Your task to perform on an android device: toggle notification dots Image 0: 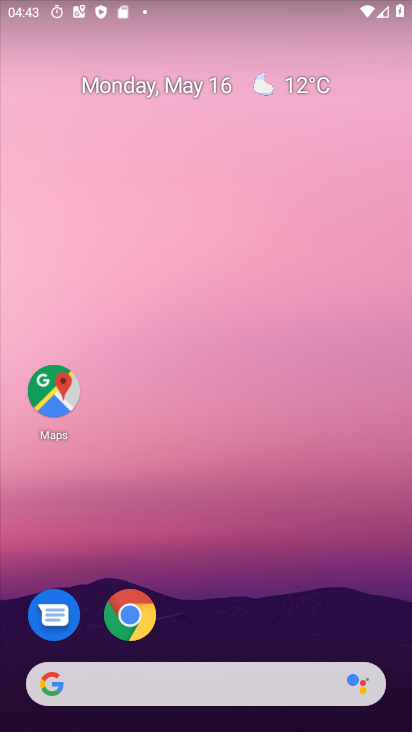
Step 0: drag from (326, 641) to (175, 6)
Your task to perform on an android device: toggle notification dots Image 1: 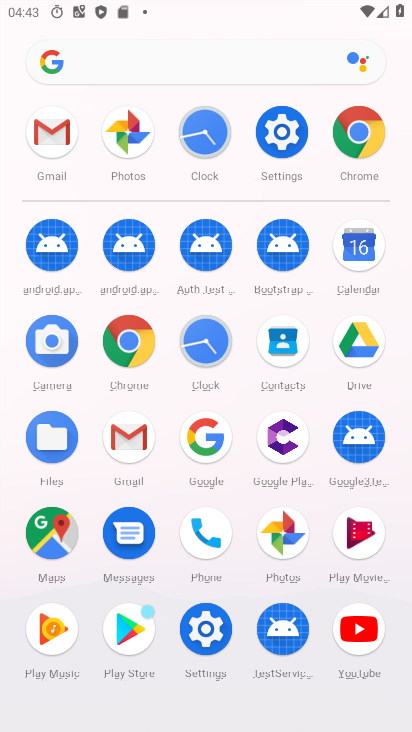
Step 1: click (215, 628)
Your task to perform on an android device: toggle notification dots Image 2: 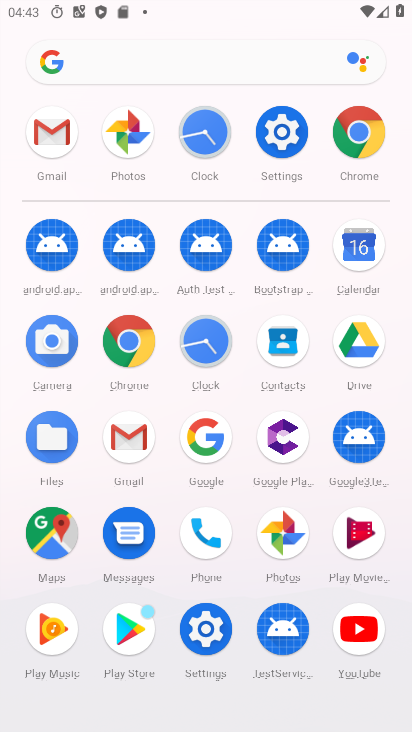
Step 2: click (206, 627)
Your task to perform on an android device: toggle notification dots Image 3: 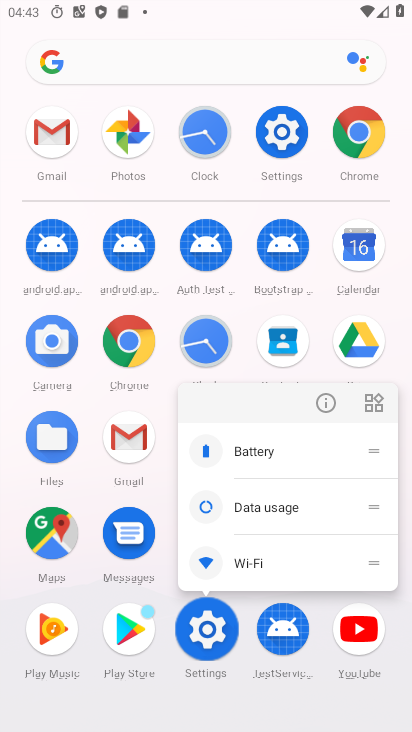
Step 3: click (206, 627)
Your task to perform on an android device: toggle notification dots Image 4: 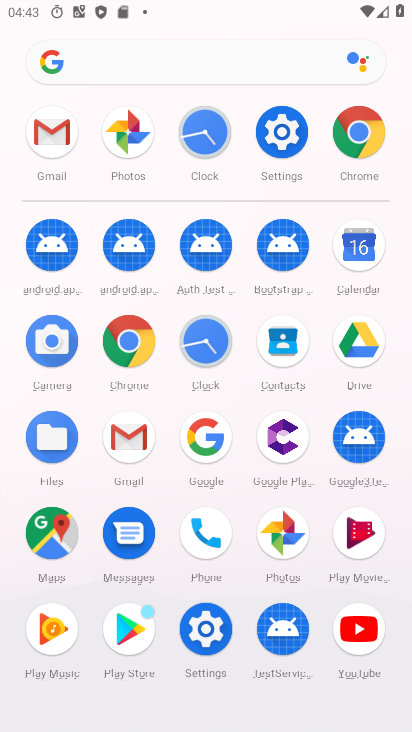
Step 4: click (207, 626)
Your task to perform on an android device: toggle notification dots Image 5: 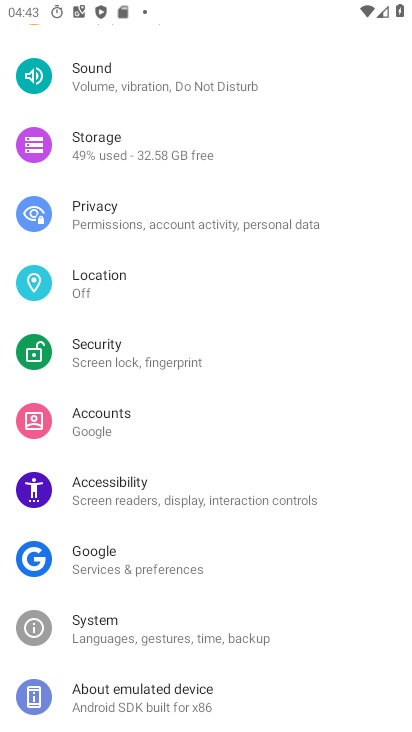
Step 5: click (210, 628)
Your task to perform on an android device: toggle notification dots Image 6: 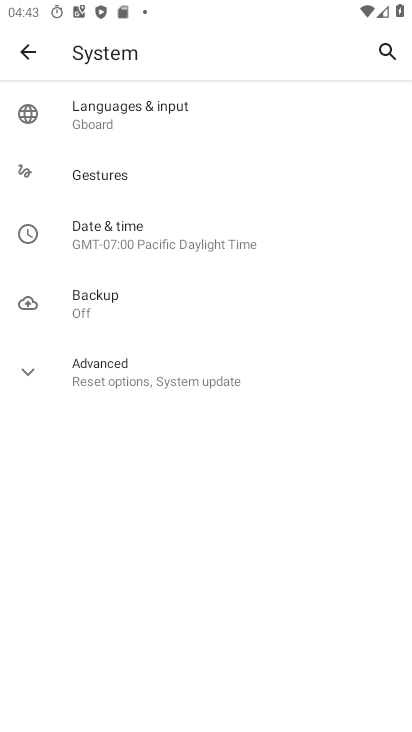
Step 6: click (24, 47)
Your task to perform on an android device: toggle notification dots Image 7: 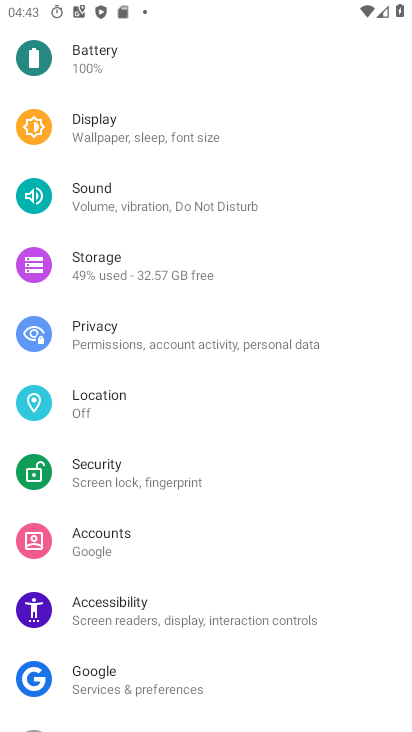
Step 7: drag from (129, 208) to (225, 582)
Your task to perform on an android device: toggle notification dots Image 8: 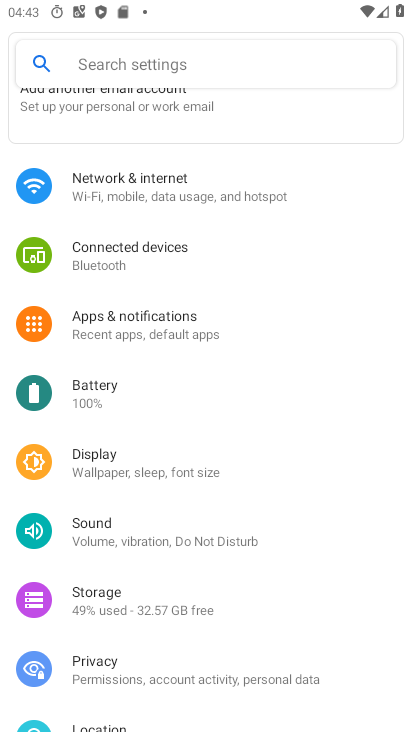
Step 8: drag from (183, 101) to (183, 483)
Your task to perform on an android device: toggle notification dots Image 9: 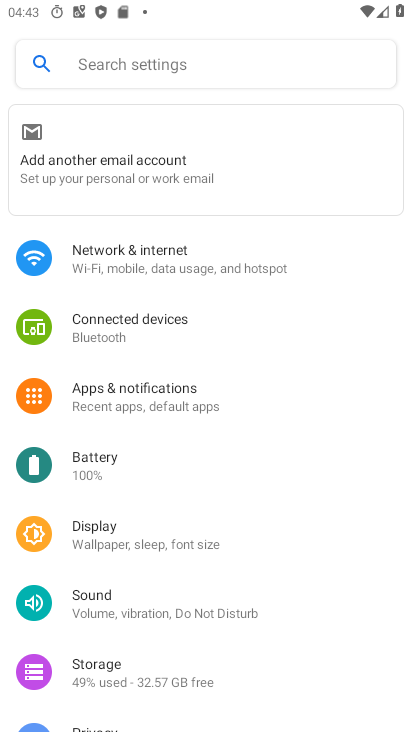
Step 9: click (120, 321)
Your task to perform on an android device: toggle notification dots Image 10: 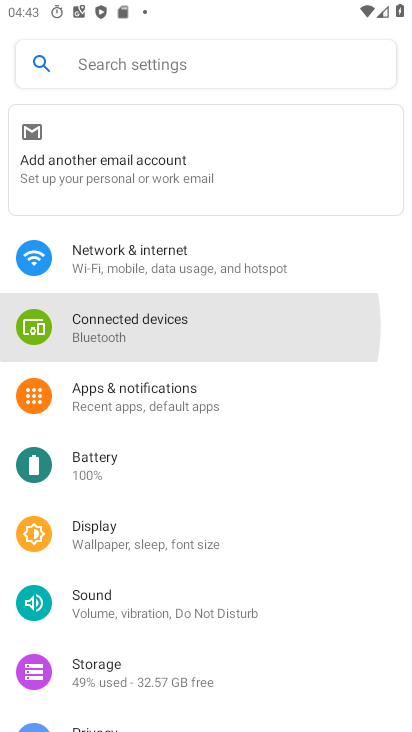
Step 10: click (121, 308)
Your task to perform on an android device: toggle notification dots Image 11: 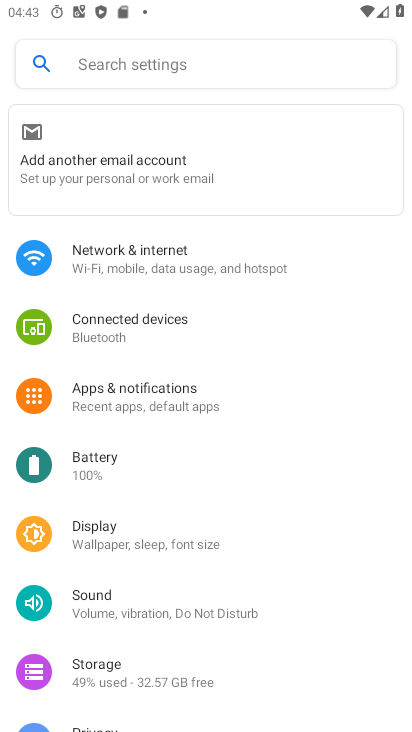
Step 11: click (127, 314)
Your task to perform on an android device: toggle notification dots Image 12: 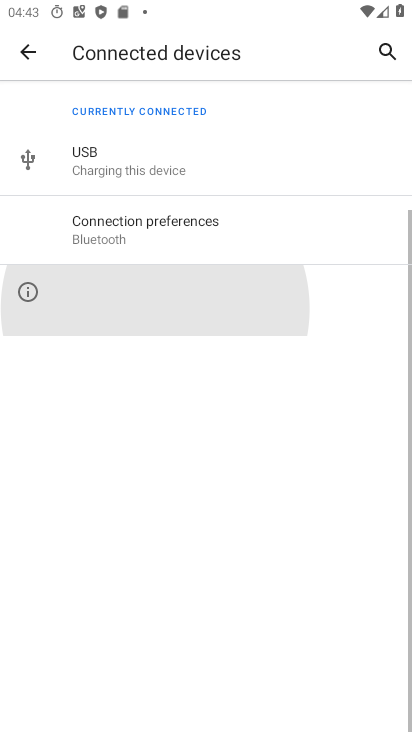
Step 12: click (132, 319)
Your task to perform on an android device: toggle notification dots Image 13: 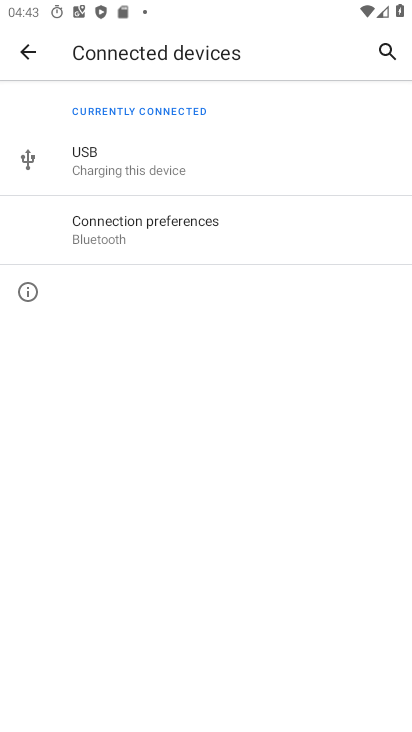
Step 13: click (12, 48)
Your task to perform on an android device: toggle notification dots Image 14: 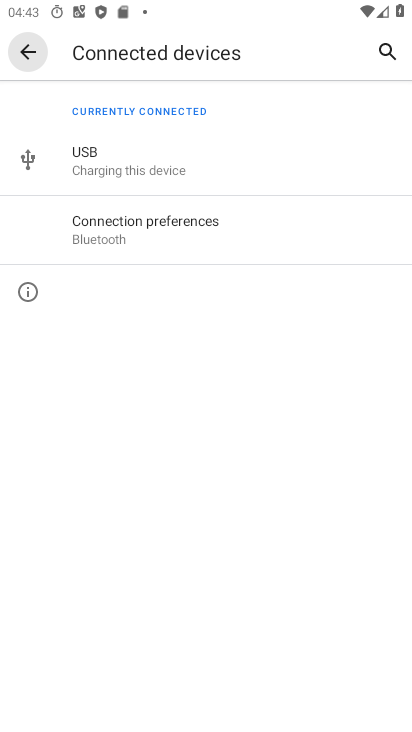
Step 14: click (15, 48)
Your task to perform on an android device: toggle notification dots Image 15: 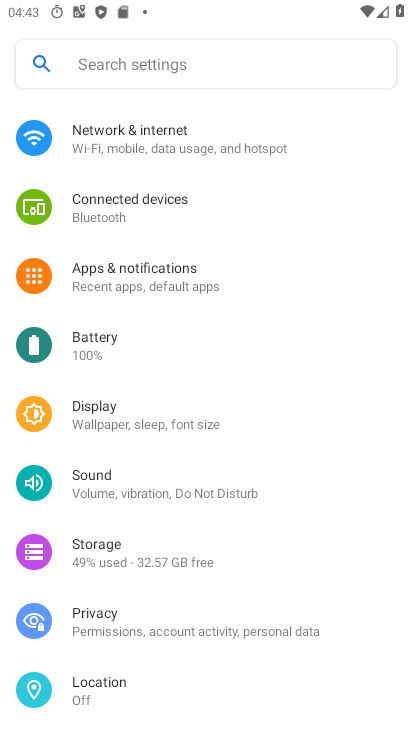
Step 15: click (17, 50)
Your task to perform on an android device: toggle notification dots Image 16: 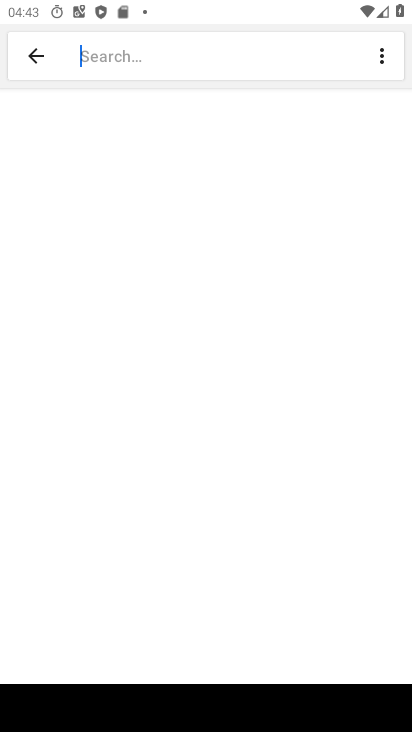
Step 16: click (133, 401)
Your task to perform on an android device: toggle notification dots Image 17: 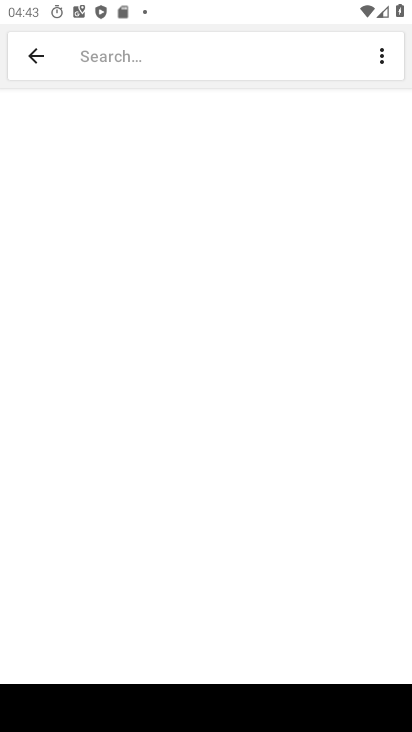
Step 17: click (133, 401)
Your task to perform on an android device: toggle notification dots Image 18: 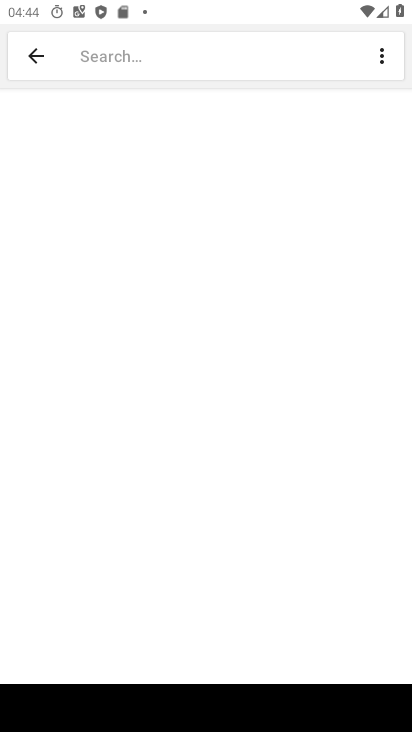
Step 18: click (37, 52)
Your task to perform on an android device: toggle notification dots Image 19: 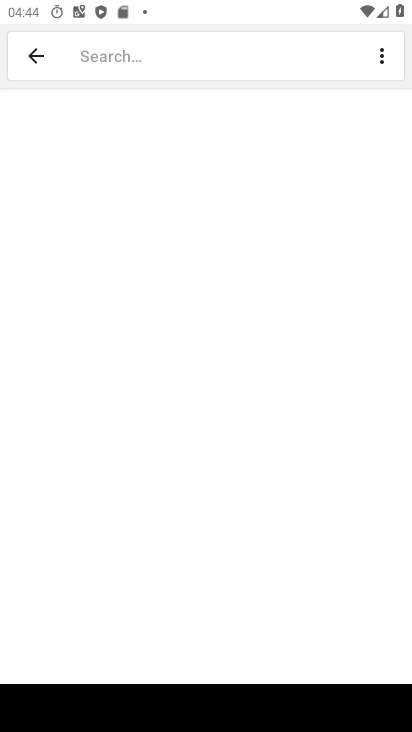
Step 19: click (38, 52)
Your task to perform on an android device: toggle notification dots Image 20: 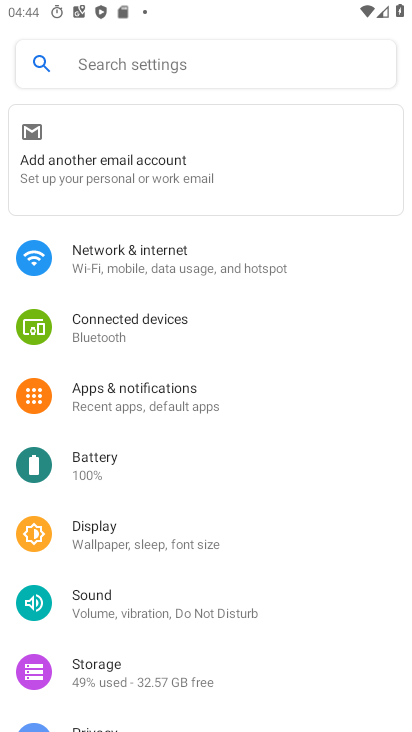
Step 20: click (127, 384)
Your task to perform on an android device: toggle notification dots Image 21: 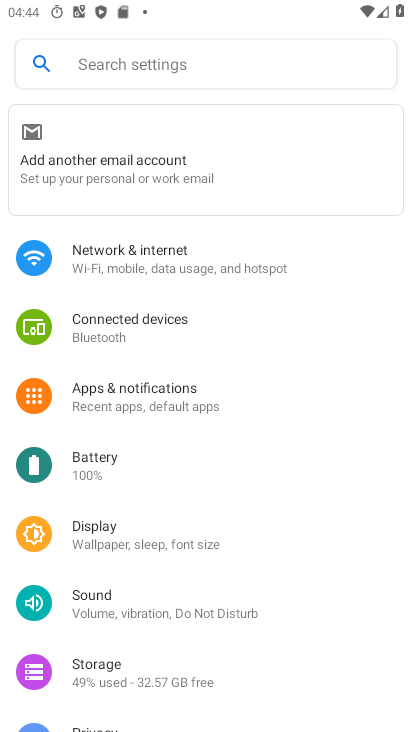
Step 21: click (127, 384)
Your task to perform on an android device: toggle notification dots Image 22: 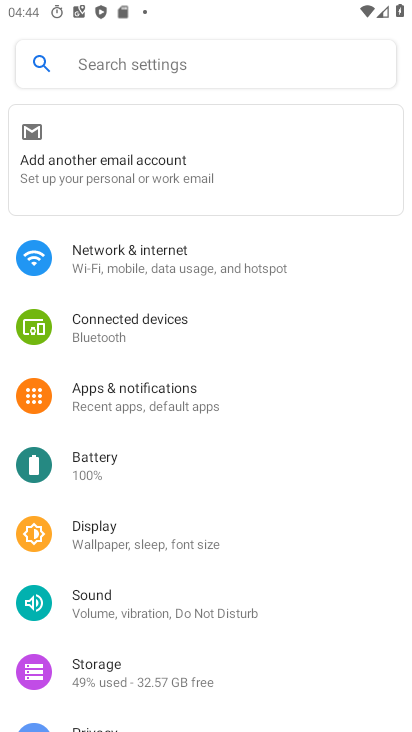
Step 22: click (126, 385)
Your task to perform on an android device: toggle notification dots Image 23: 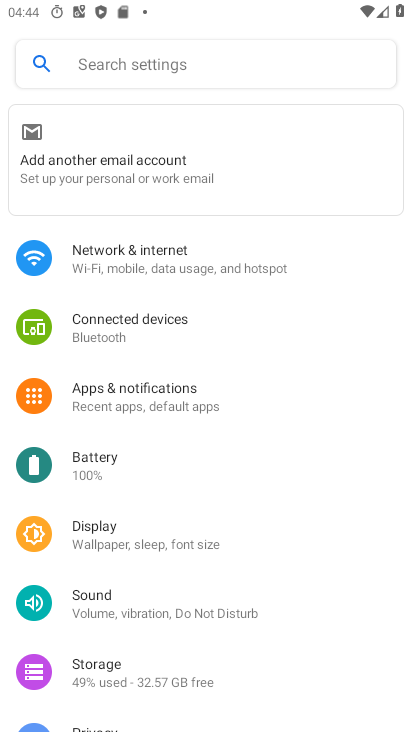
Step 23: click (127, 386)
Your task to perform on an android device: toggle notification dots Image 24: 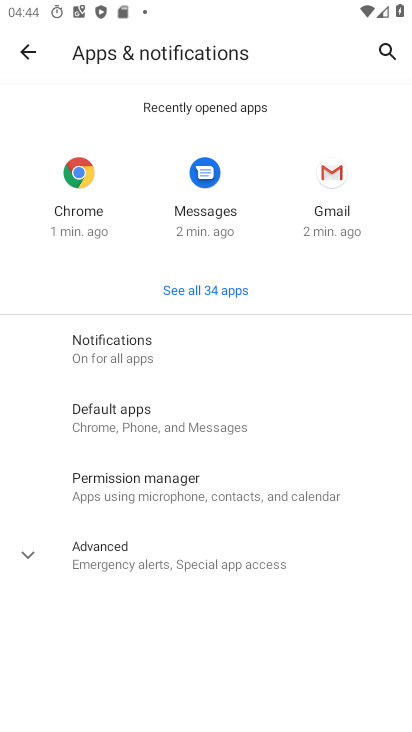
Step 24: click (96, 352)
Your task to perform on an android device: toggle notification dots Image 25: 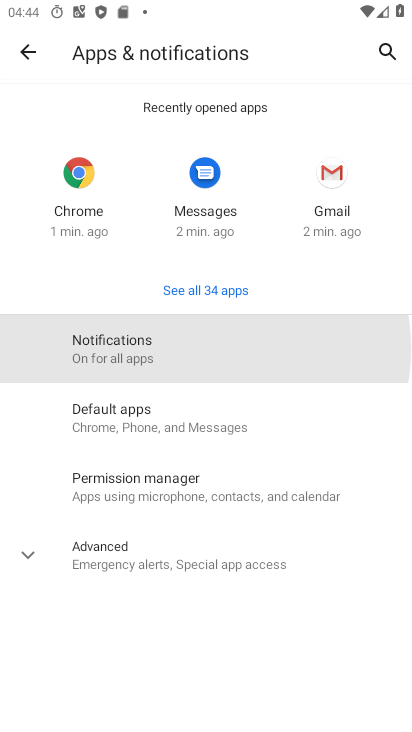
Step 25: click (98, 352)
Your task to perform on an android device: toggle notification dots Image 26: 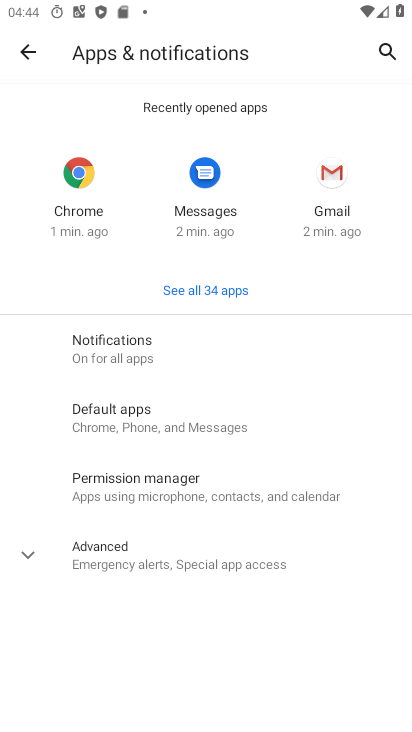
Step 26: click (99, 353)
Your task to perform on an android device: toggle notification dots Image 27: 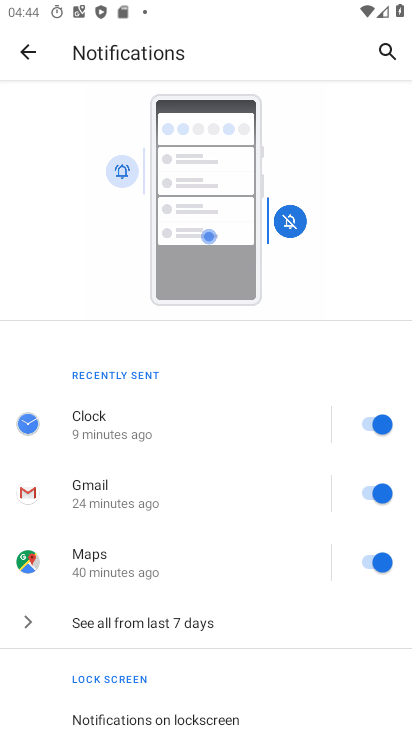
Step 27: drag from (223, 383) to (239, 80)
Your task to perform on an android device: toggle notification dots Image 28: 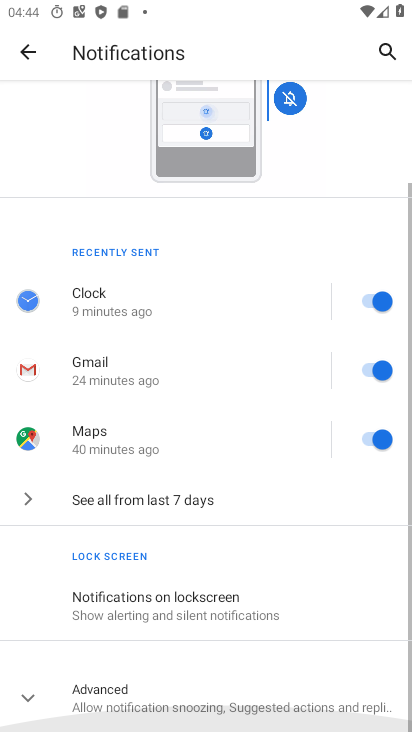
Step 28: drag from (243, 422) to (207, 12)
Your task to perform on an android device: toggle notification dots Image 29: 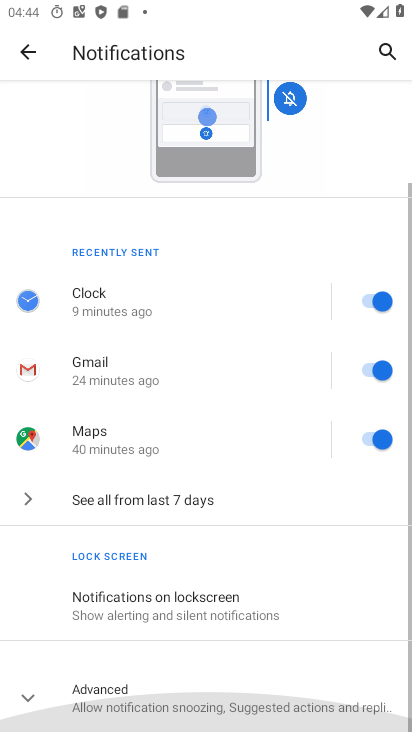
Step 29: drag from (219, 363) to (171, 76)
Your task to perform on an android device: toggle notification dots Image 30: 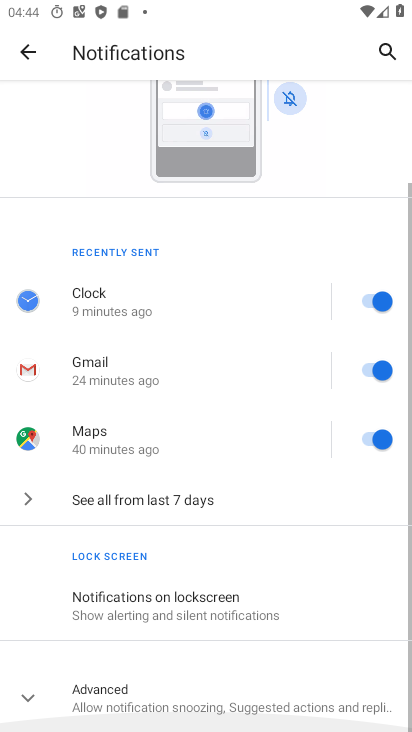
Step 30: drag from (256, 438) to (226, 8)
Your task to perform on an android device: toggle notification dots Image 31: 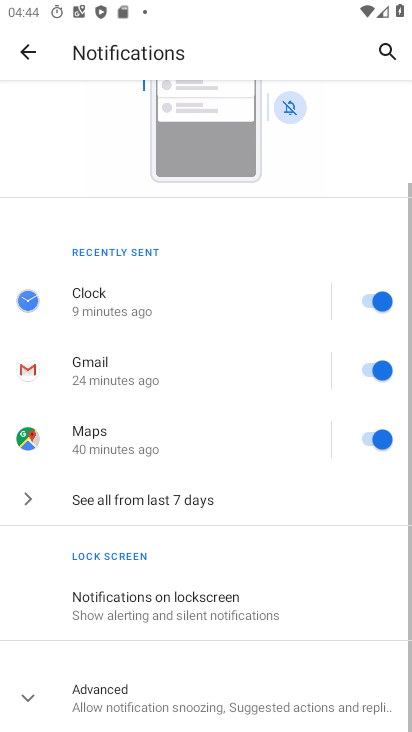
Step 31: drag from (232, 427) to (111, 113)
Your task to perform on an android device: toggle notification dots Image 32: 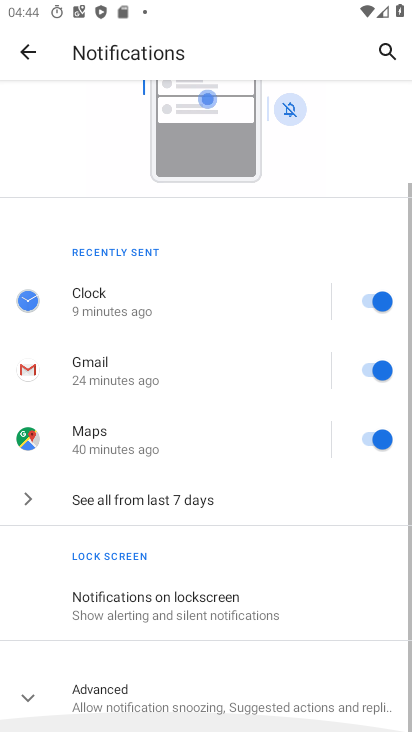
Step 32: drag from (221, 456) to (203, 235)
Your task to perform on an android device: toggle notification dots Image 33: 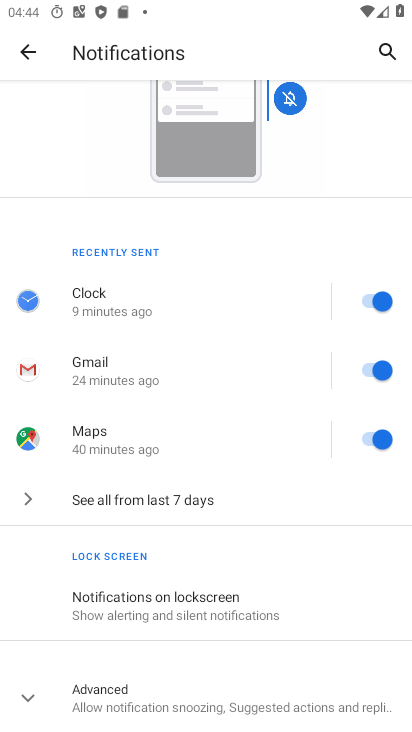
Step 33: drag from (266, 566) to (180, 10)
Your task to perform on an android device: toggle notification dots Image 34: 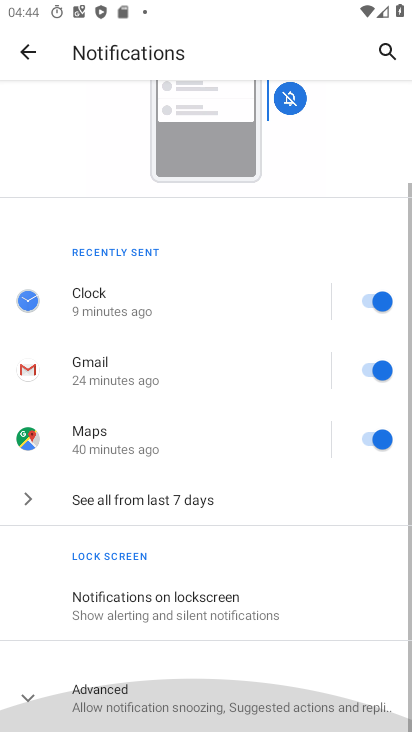
Step 34: drag from (240, 480) to (164, 0)
Your task to perform on an android device: toggle notification dots Image 35: 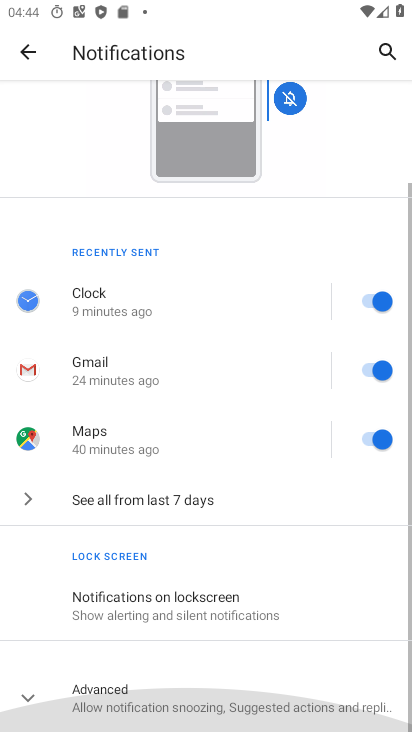
Step 35: drag from (222, 279) to (208, 55)
Your task to perform on an android device: toggle notification dots Image 36: 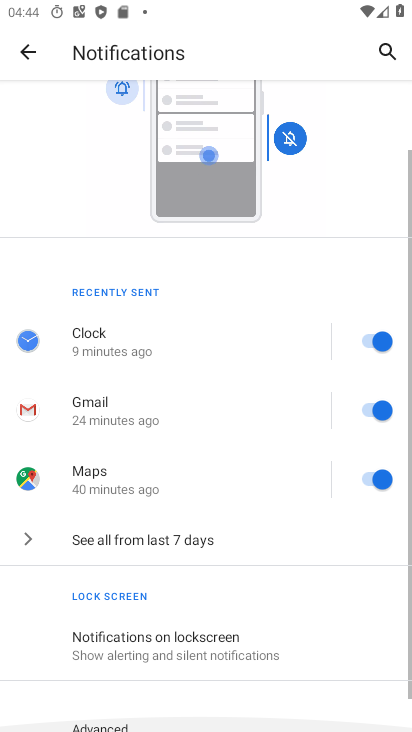
Step 36: drag from (243, 422) to (214, 79)
Your task to perform on an android device: toggle notification dots Image 37: 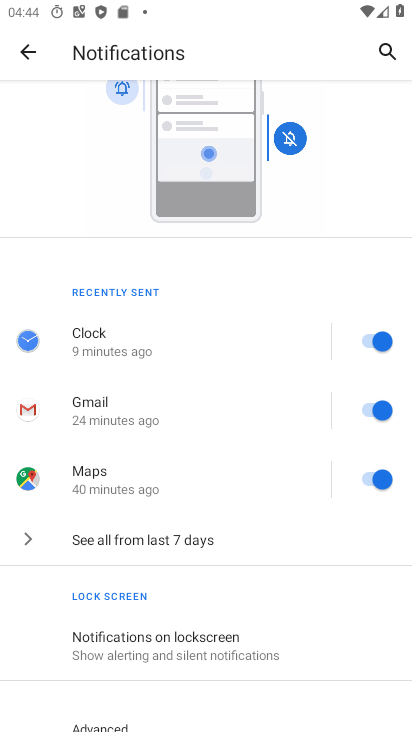
Step 37: drag from (167, 539) to (126, 54)
Your task to perform on an android device: toggle notification dots Image 38: 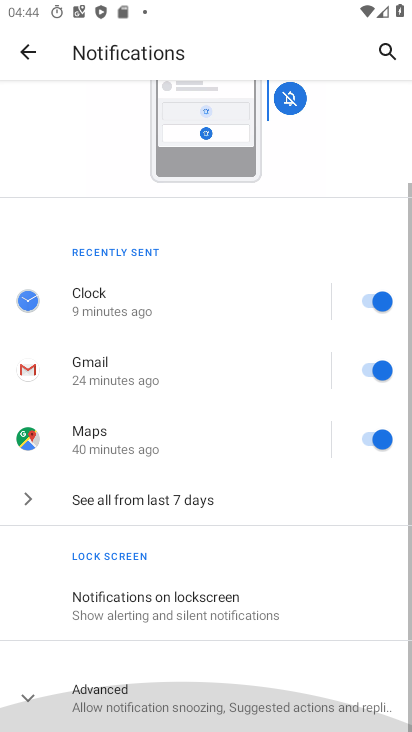
Step 38: drag from (134, 484) to (81, 55)
Your task to perform on an android device: toggle notification dots Image 39: 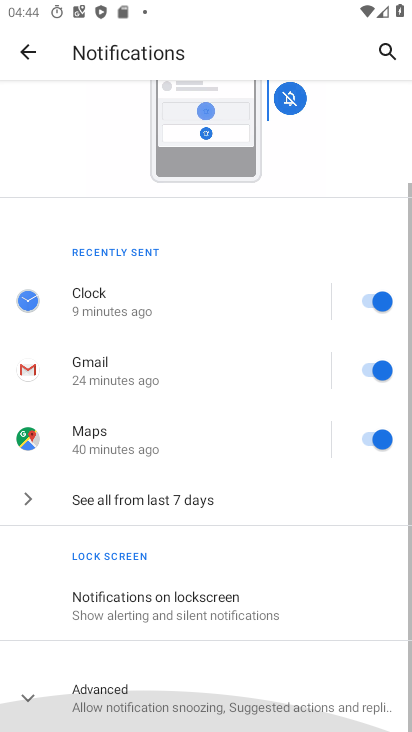
Step 39: drag from (173, 407) to (93, 13)
Your task to perform on an android device: toggle notification dots Image 40: 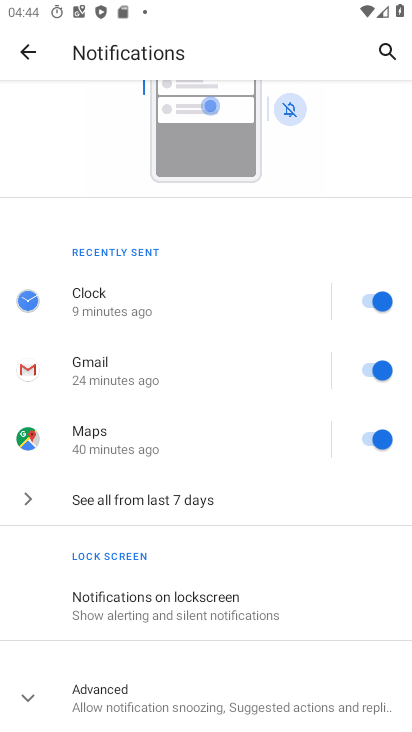
Step 40: click (138, 592)
Your task to perform on an android device: toggle notification dots Image 41: 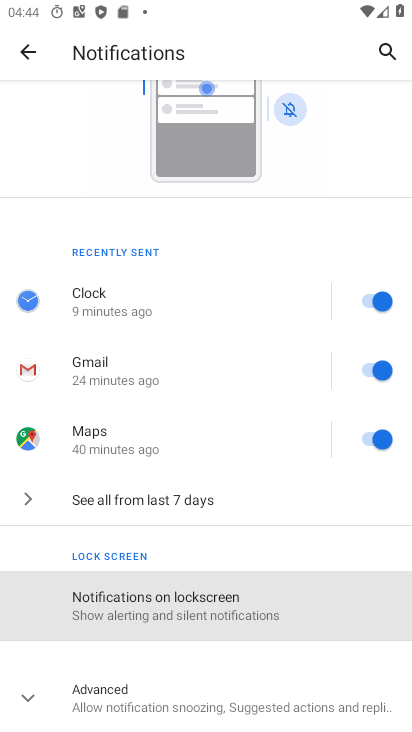
Step 41: click (138, 592)
Your task to perform on an android device: toggle notification dots Image 42: 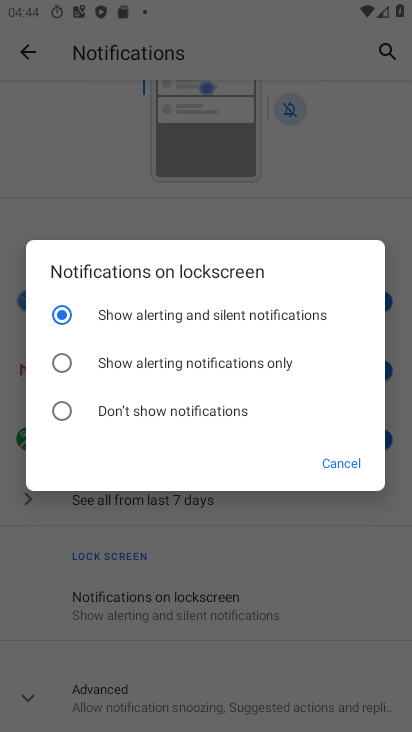
Step 42: click (137, 590)
Your task to perform on an android device: toggle notification dots Image 43: 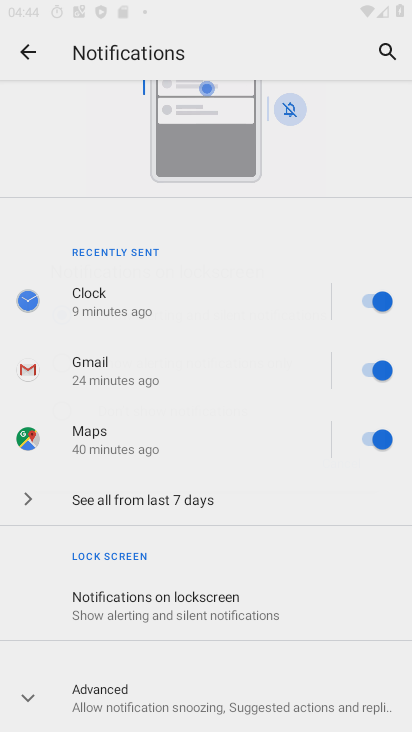
Step 43: click (135, 586)
Your task to perform on an android device: toggle notification dots Image 44: 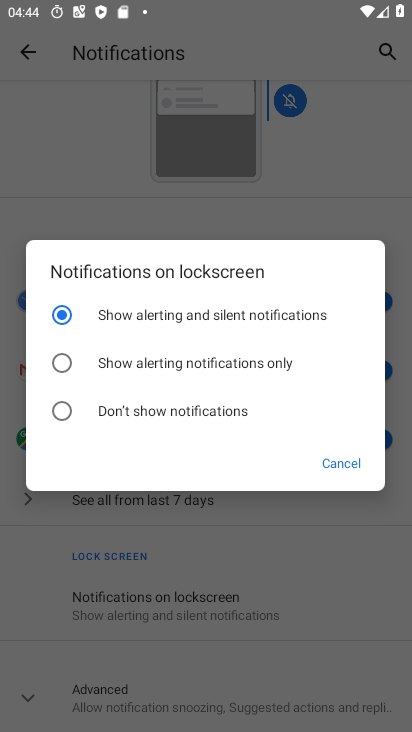
Step 44: click (337, 459)
Your task to perform on an android device: toggle notification dots Image 45: 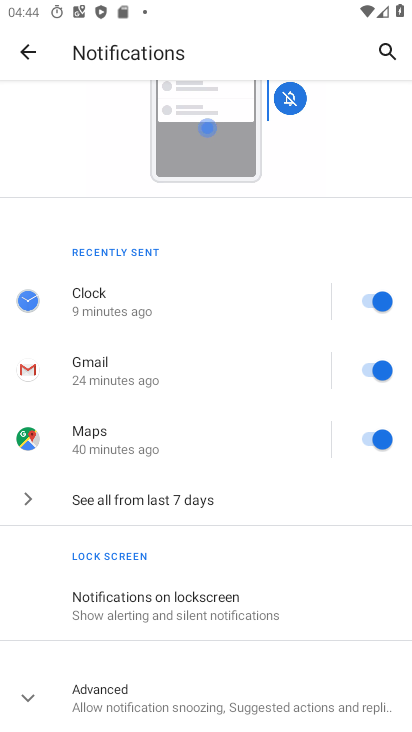
Step 45: drag from (121, 450) to (82, 174)
Your task to perform on an android device: toggle notification dots Image 46: 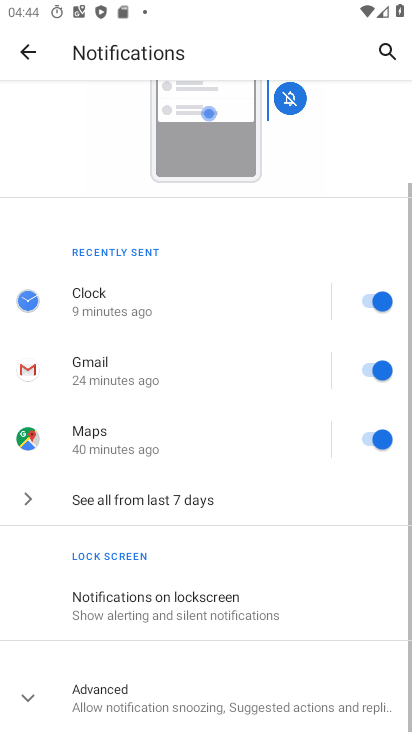
Step 46: click (128, 694)
Your task to perform on an android device: toggle notification dots Image 47: 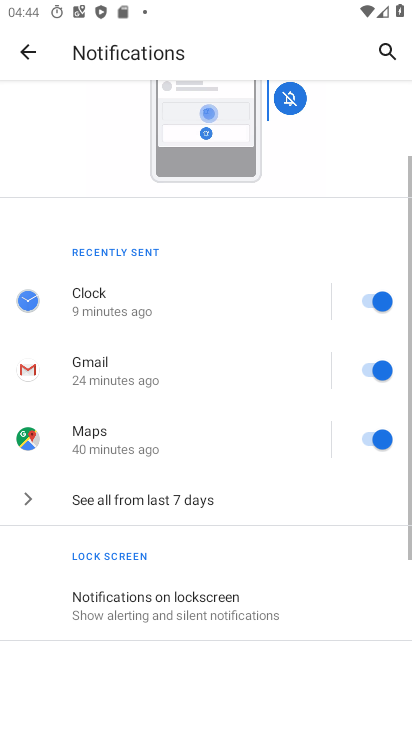
Step 47: click (125, 695)
Your task to perform on an android device: toggle notification dots Image 48: 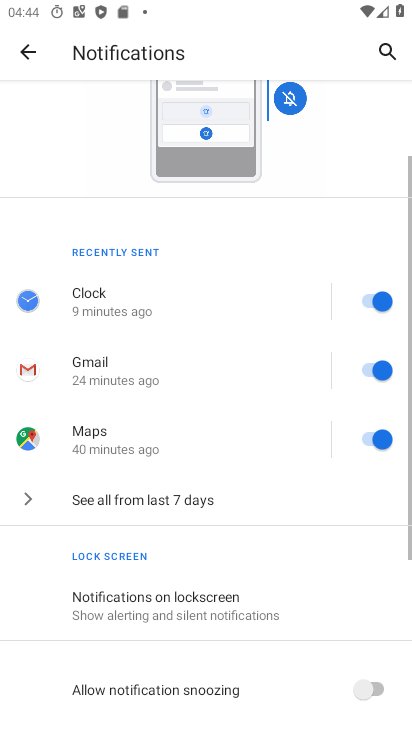
Step 48: click (124, 694)
Your task to perform on an android device: toggle notification dots Image 49: 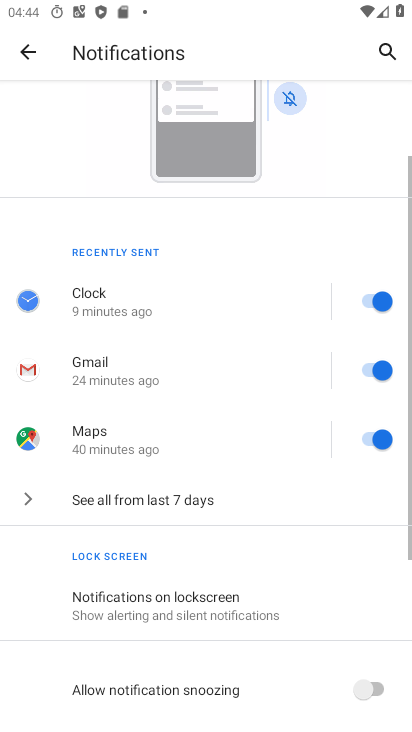
Step 49: drag from (212, 633) to (206, 3)
Your task to perform on an android device: toggle notification dots Image 50: 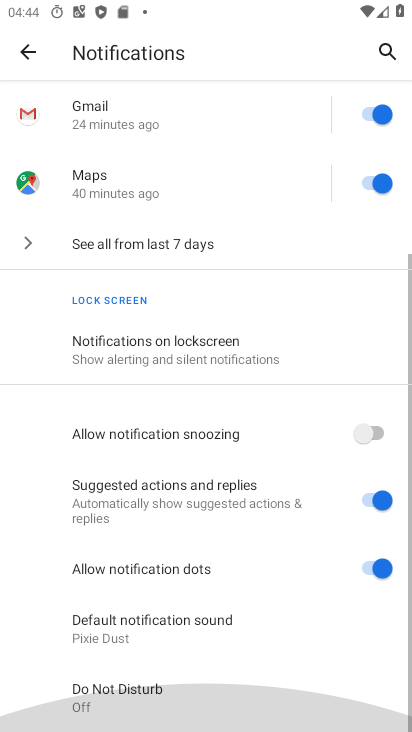
Step 50: drag from (196, 377) to (135, 79)
Your task to perform on an android device: toggle notification dots Image 51: 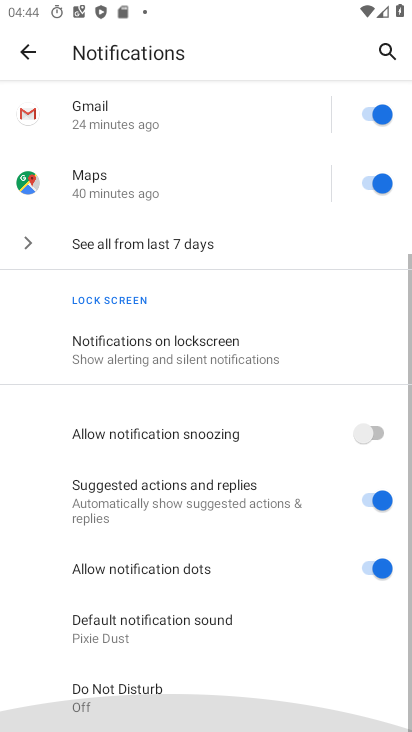
Step 51: drag from (152, 598) to (131, 7)
Your task to perform on an android device: toggle notification dots Image 52: 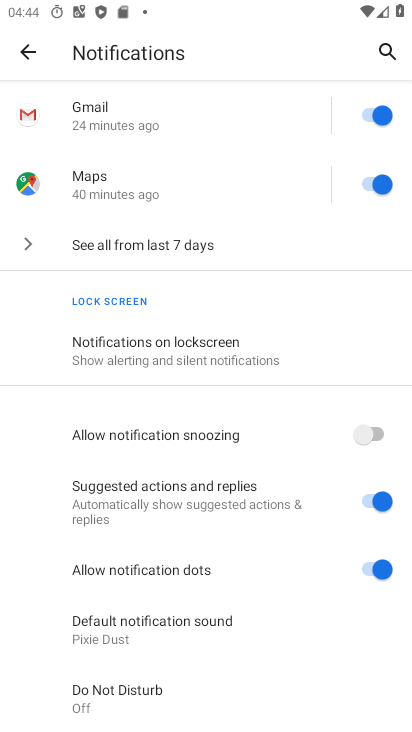
Step 52: click (376, 574)
Your task to perform on an android device: toggle notification dots Image 53: 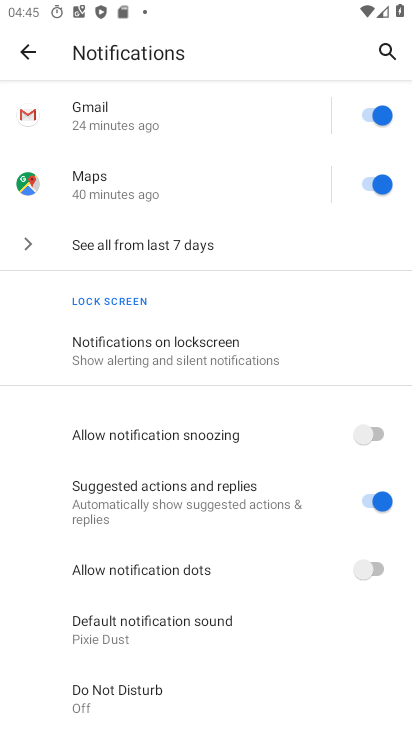
Step 53: task complete